Your task to perform on an android device: turn off translation in the chrome app Image 0: 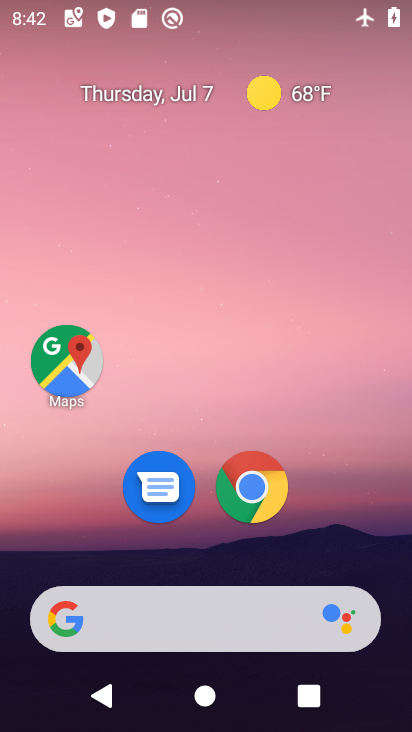
Step 0: click (262, 471)
Your task to perform on an android device: turn off translation in the chrome app Image 1: 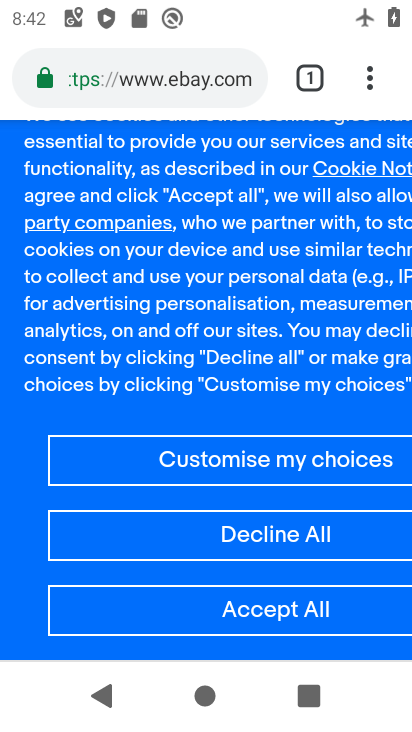
Step 1: click (366, 75)
Your task to perform on an android device: turn off translation in the chrome app Image 2: 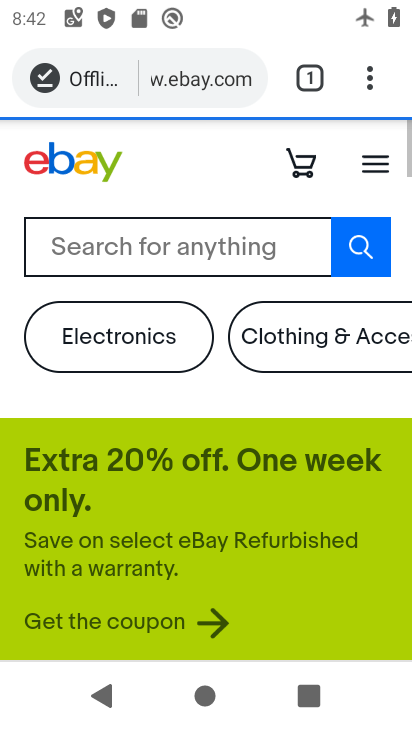
Step 2: click (368, 73)
Your task to perform on an android device: turn off translation in the chrome app Image 3: 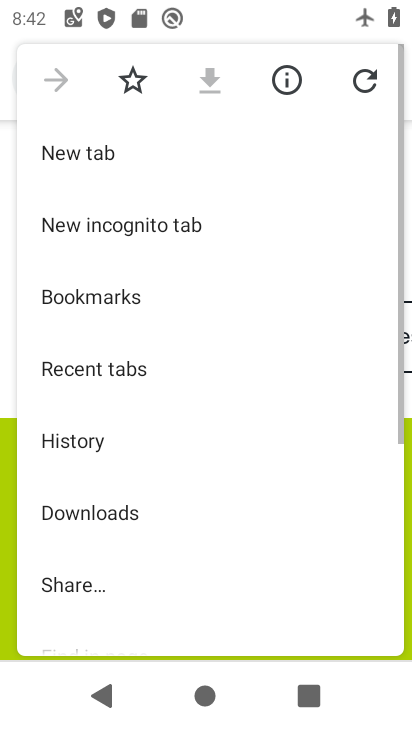
Step 3: drag from (141, 517) to (92, 26)
Your task to perform on an android device: turn off translation in the chrome app Image 4: 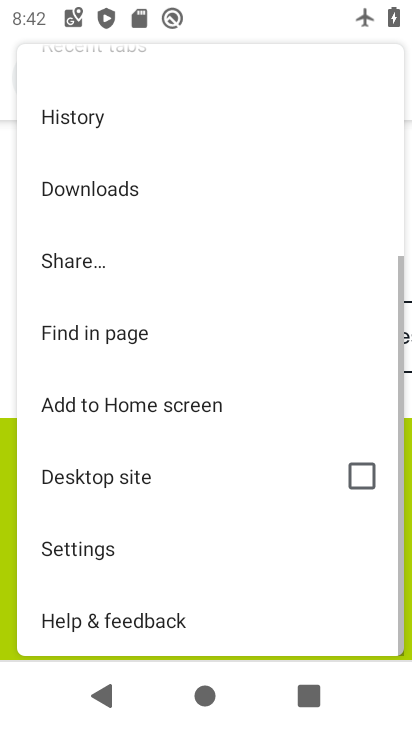
Step 4: click (94, 525)
Your task to perform on an android device: turn off translation in the chrome app Image 5: 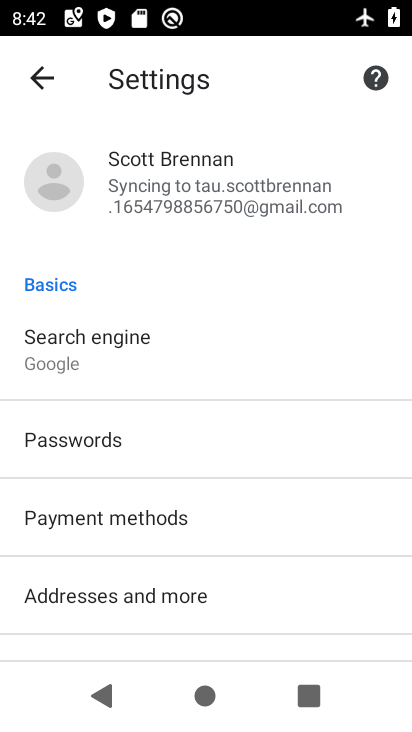
Step 5: drag from (157, 553) to (138, 79)
Your task to perform on an android device: turn off translation in the chrome app Image 6: 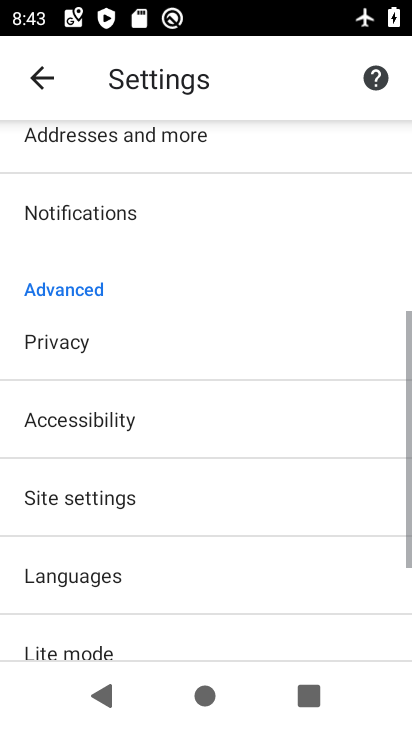
Step 6: drag from (207, 515) to (185, 267)
Your task to perform on an android device: turn off translation in the chrome app Image 7: 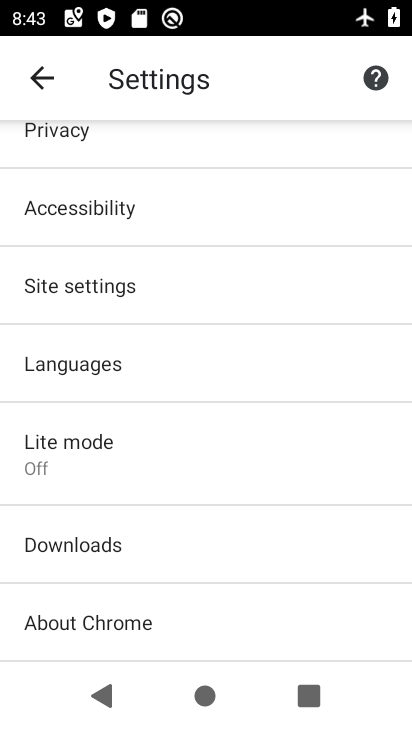
Step 7: click (128, 377)
Your task to perform on an android device: turn off translation in the chrome app Image 8: 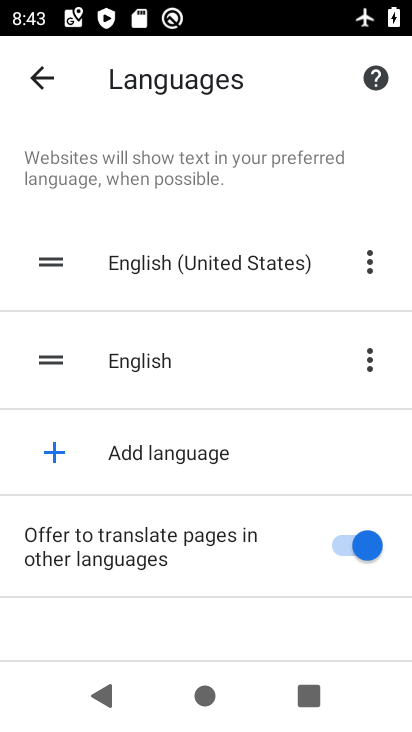
Step 8: click (344, 522)
Your task to perform on an android device: turn off translation in the chrome app Image 9: 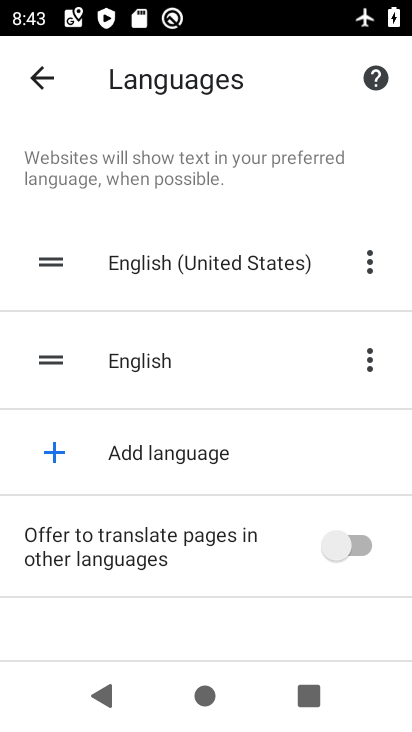
Step 9: task complete